Your task to perform on an android device: Search for vegetarian restaurants on Maps Image 0: 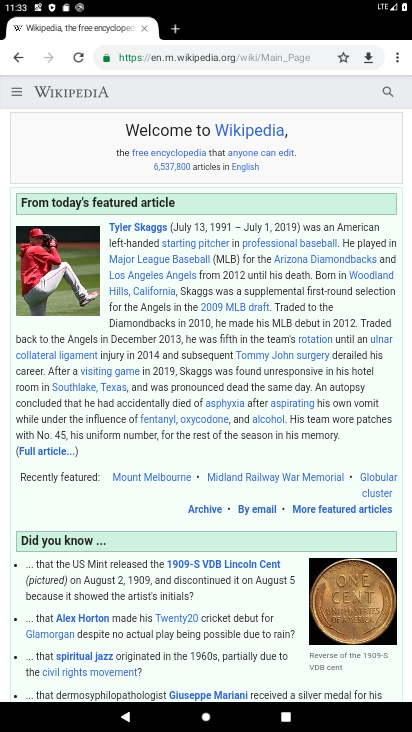
Step 0: press home button
Your task to perform on an android device: Search for vegetarian restaurants on Maps Image 1: 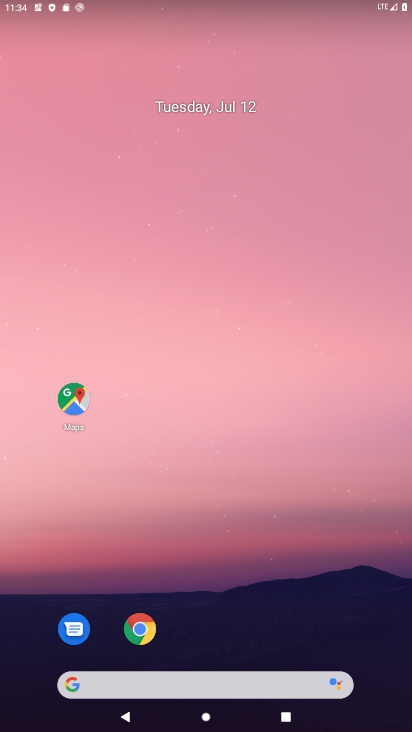
Step 1: click (67, 393)
Your task to perform on an android device: Search for vegetarian restaurants on Maps Image 2: 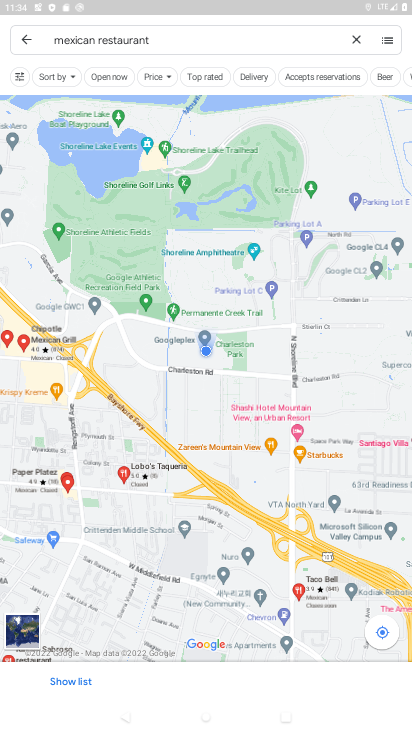
Step 2: click (354, 40)
Your task to perform on an android device: Search for vegetarian restaurants on Maps Image 3: 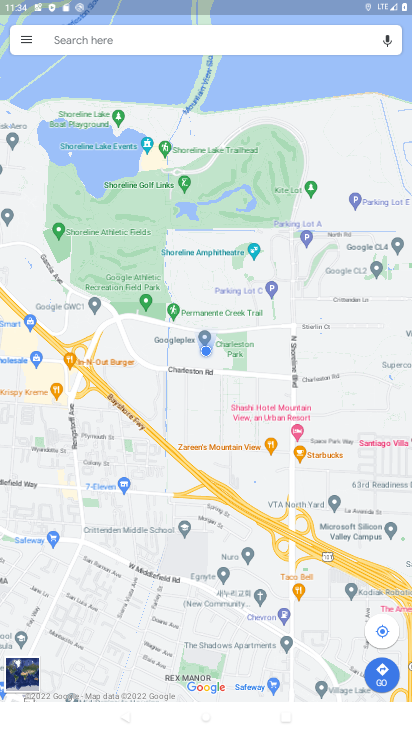
Step 3: click (171, 31)
Your task to perform on an android device: Search for vegetarian restaurants on Maps Image 4: 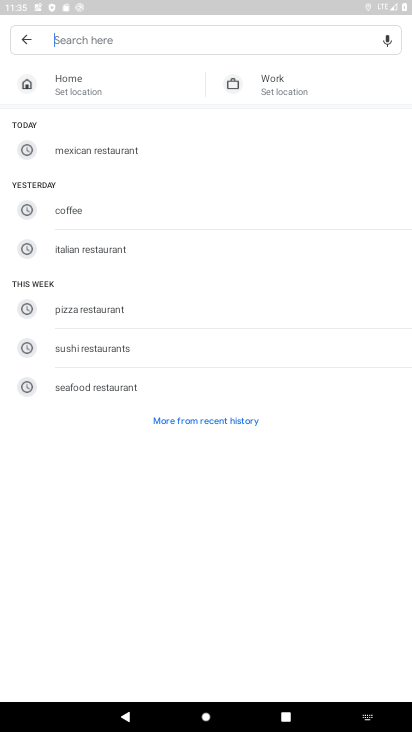
Step 4: type "vegetarian"
Your task to perform on an android device: Search for vegetarian restaurants on Maps Image 5: 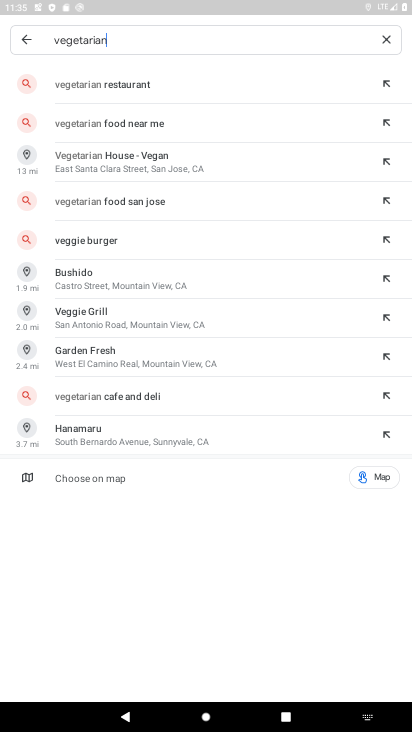
Step 5: click (146, 79)
Your task to perform on an android device: Search for vegetarian restaurants on Maps Image 6: 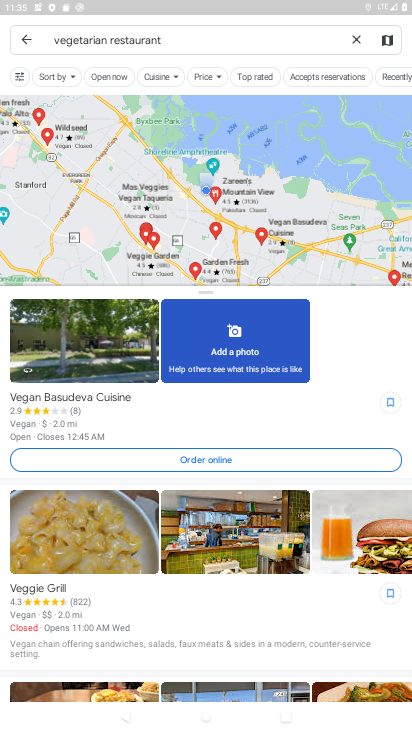
Step 6: task complete